Your task to perform on an android device: Open Google Maps and go to "Timeline" Image 0: 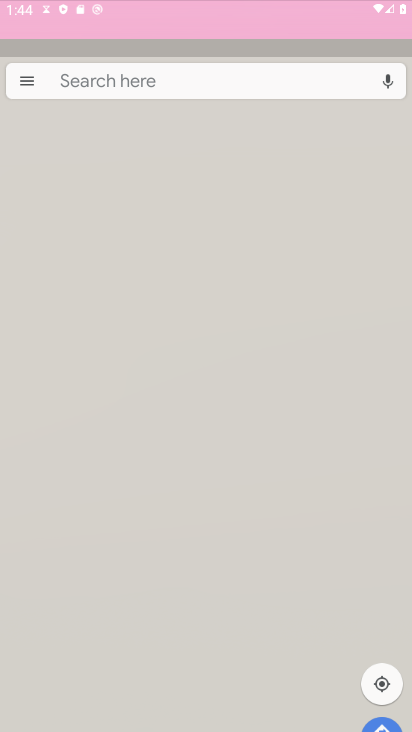
Step 0: press back button
Your task to perform on an android device: Open Google Maps and go to "Timeline" Image 1: 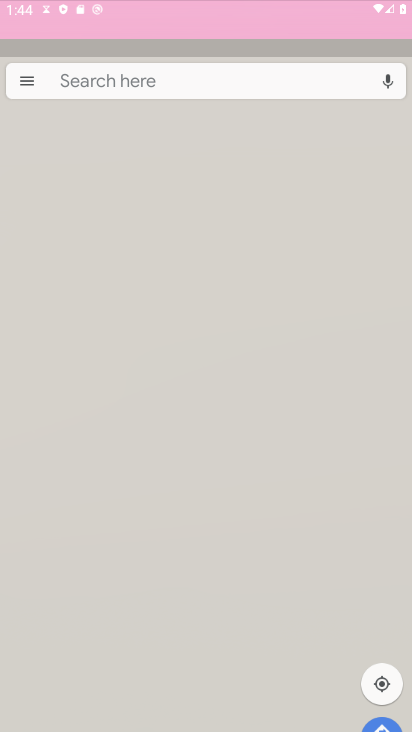
Step 1: click (320, 316)
Your task to perform on an android device: Open Google Maps and go to "Timeline" Image 2: 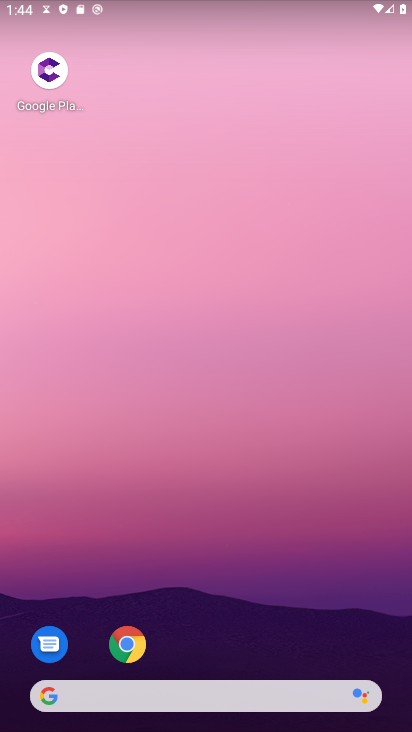
Step 2: drag from (70, 114) to (409, 439)
Your task to perform on an android device: Open Google Maps and go to "Timeline" Image 3: 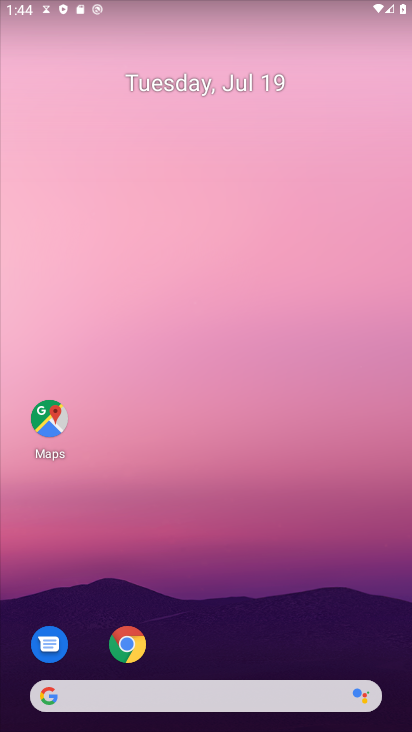
Step 3: drag from (42, 147) to (402, 441)
Your task to perform on an android device: Open Google Maps and go to "Timeline" Image 4: 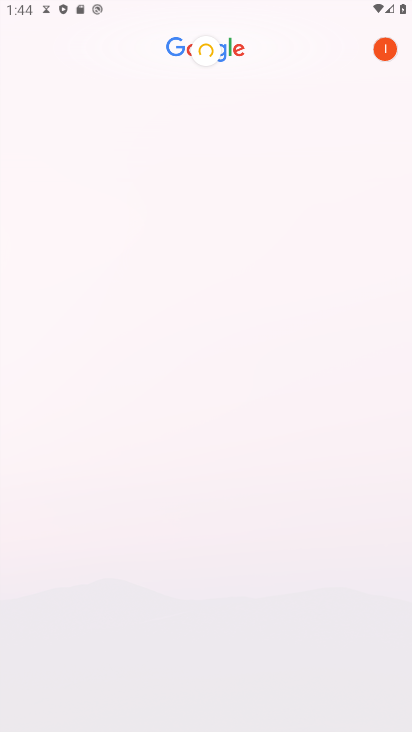
Step 4: press back button
Your task to perform on an android device: Open Google Maps and go to "Timeline" Image 5: 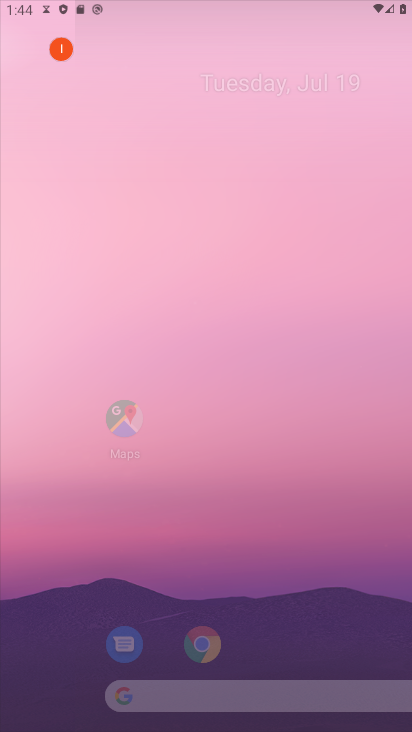
Step 5: press back button
Your task to perform on an android device: Open Google Maps and go to "Timeline" Image 6: 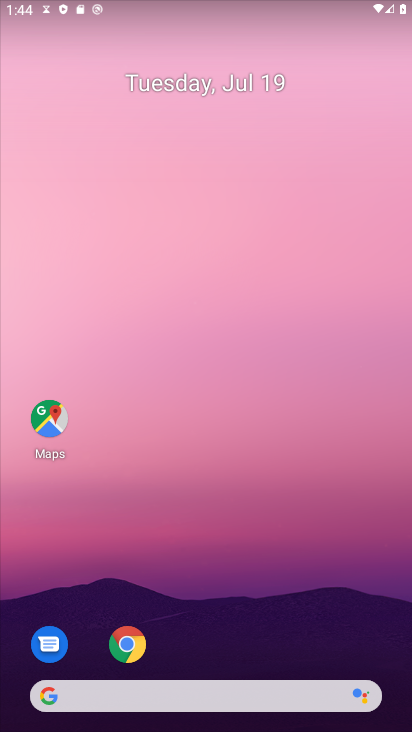
Step 6: click (57, 411)
Your task to perform on an android device: Open Google Maps and go to "Timeline" Image 7: 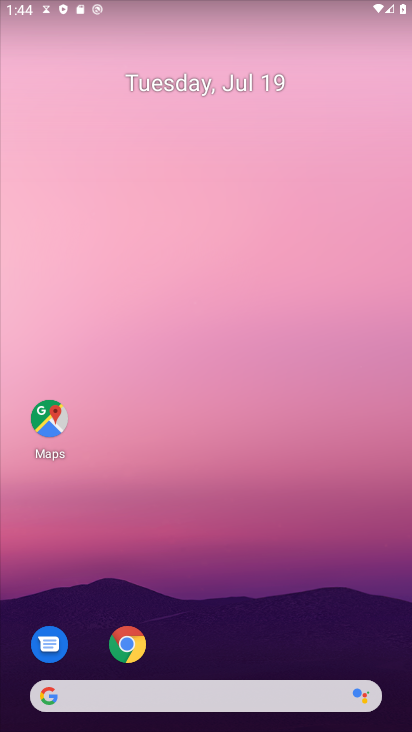
Step 7: click (56, 412)
Your task to perform on an android device: Open Google Maps and go to "Timeline" Image 8: 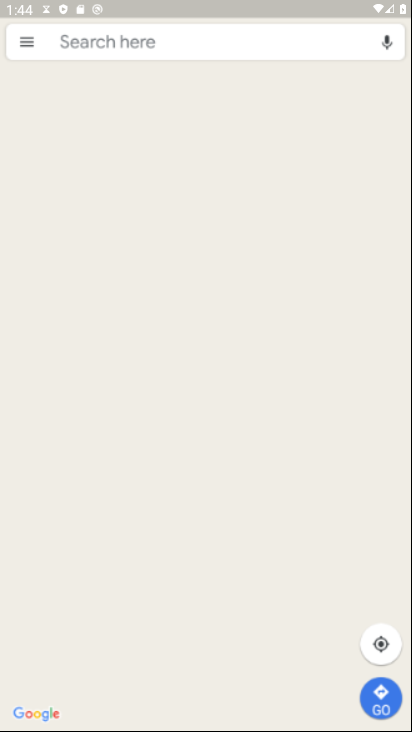
Step 8: click (56, 412)
Your task to perform on an android device: Open Google Maps and go to "Timeline" Image 9: 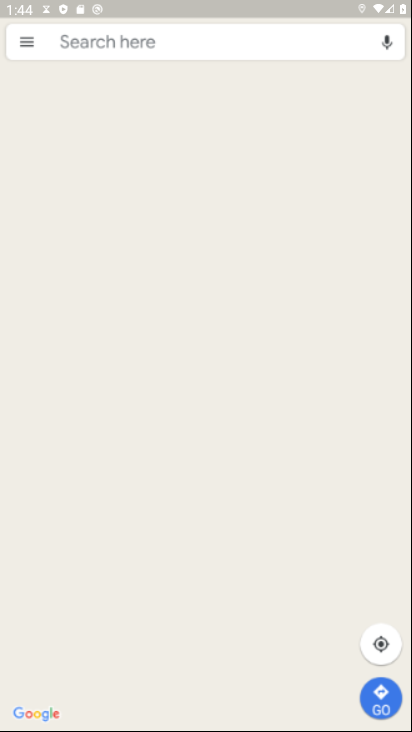
Step 9: click (56, 412)
Your task to perform on an android device: Open Google Maps and go to "Timeline" Image 10: 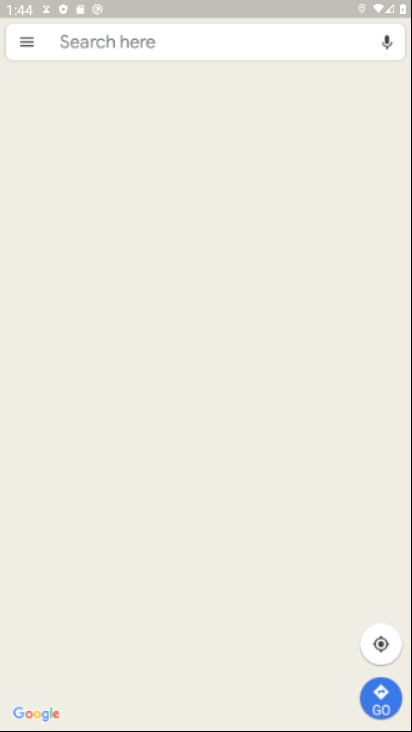
Step 10: click (56, 412)
Your task to perform on an android device: Open Google Maps and go to "Timeline" Image 11: 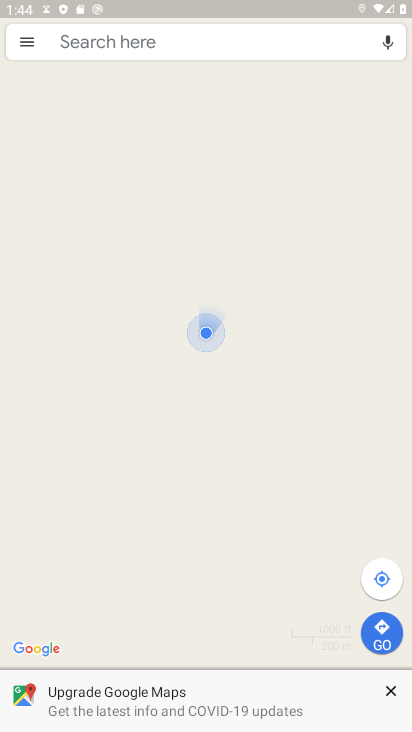
Step 11: click (22, 40)
Your task to perform on an android device: Open Google Maps and go to "Timeline" Image 12: 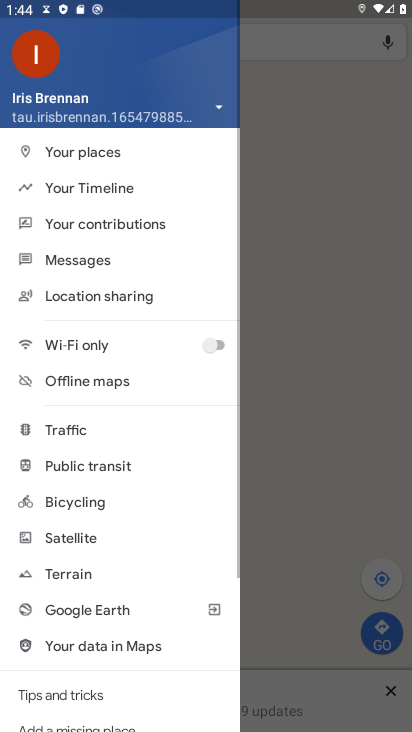
Step 12: click (33, 34)
Your task to perform on an android device: Open Google Maps and go to "Timeline" Image 13: 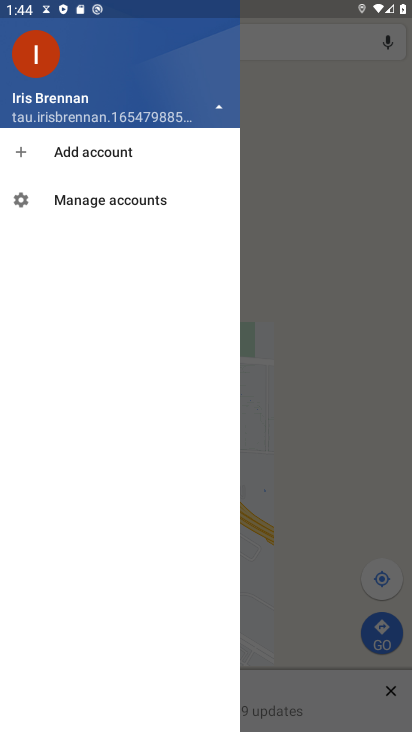
Step 13: click (88, 191)
Your task to perform on an android device: Open Google Maps and go to "Timeline" Image 14: 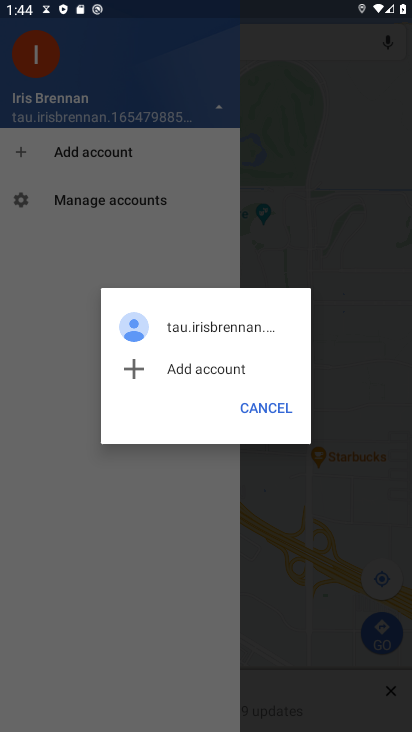
Step 14: click (265, 400)
Your task to perform on an android device: Open Google Maps and go to "Timeline" Image 15: 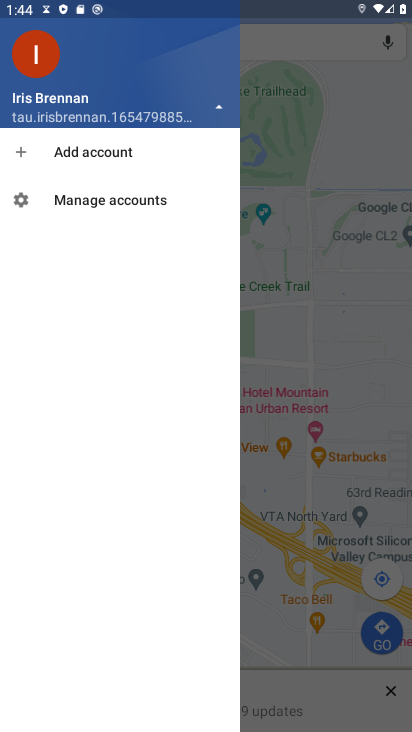
Step 15: click (296, 240)
Your task to perform on an android device: Open Google Maps and go to "Timeline" Image 16: 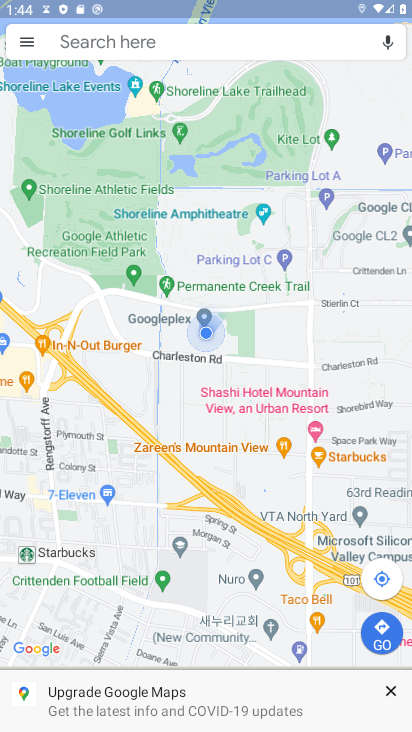
Step 16: click (29, 31)
Your task to perform on an android device: Open Google Maps and go to "Timeline" Image 17: 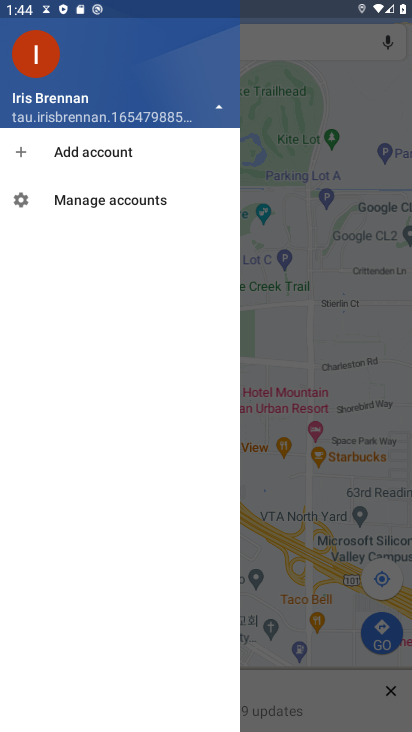
Step 17: task complete